Your task to perform on an android device: Open location settings Image 0: 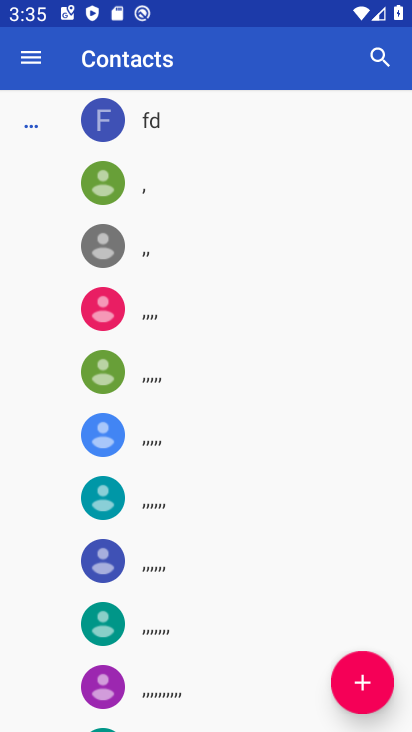
Step 0: press back button
Your task to perform on an android device: Open location settings Image 1: 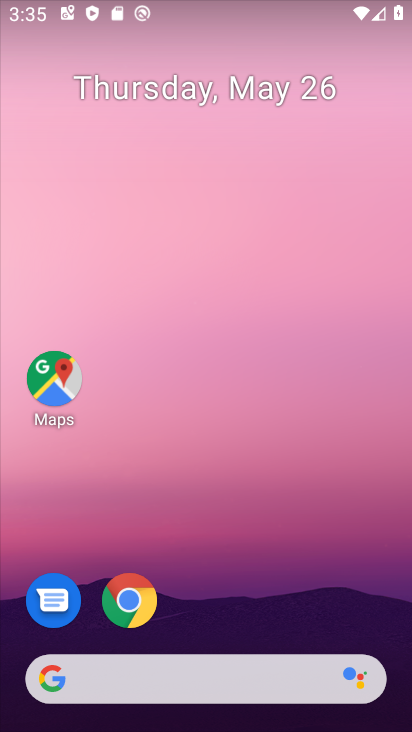
Step 1: drag from (271, 561) to (177, 43)
Your task to perform on an android device: Open location settings Image 2: 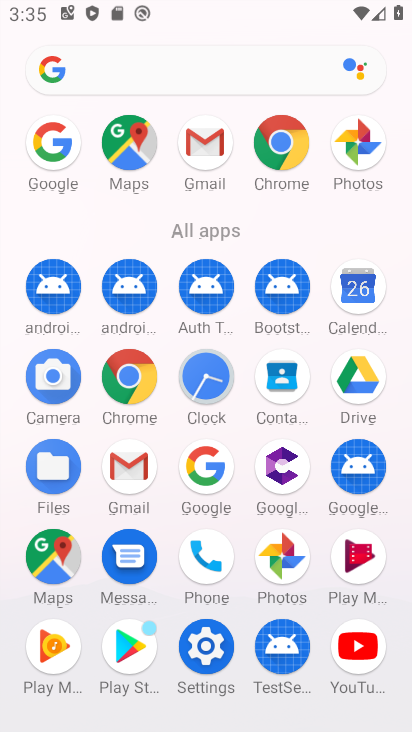
Step 2: drag from (5, 604) to (2, 224)
Your task to perform on an android device: Open location settings Image 3: 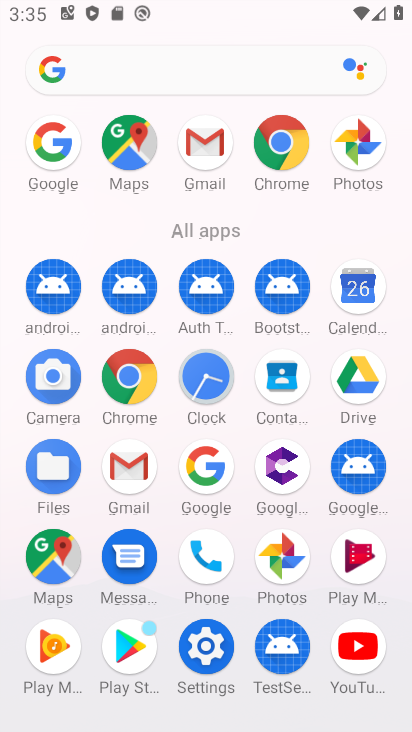
Step 3: click (203, 642)
Your task to perform on an android device: Open location settings Image 4: 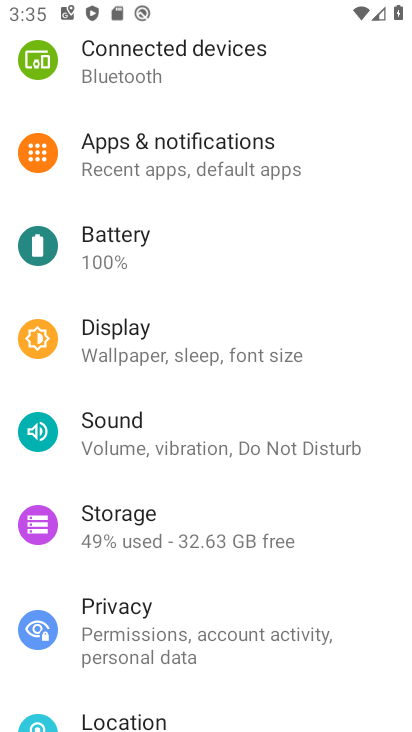
Step 4: drag from (229, 634) to (226, 277)
Your task to perform on an android device: Open location settings Image 5: 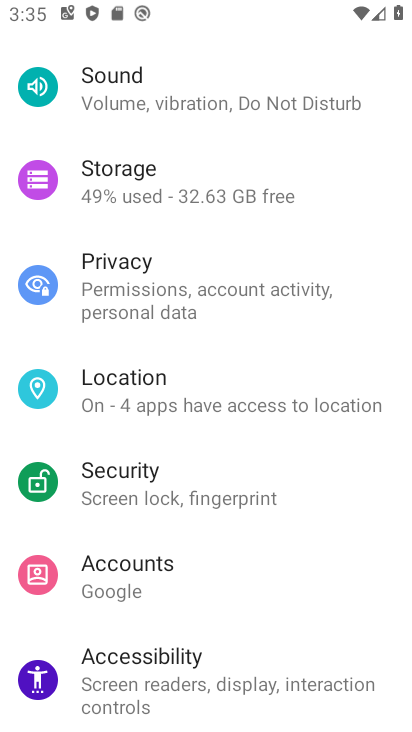
Step 5: drag from (256, 649) to (255, 347)
Your task to perform on an android device: Open location settings Image 6: 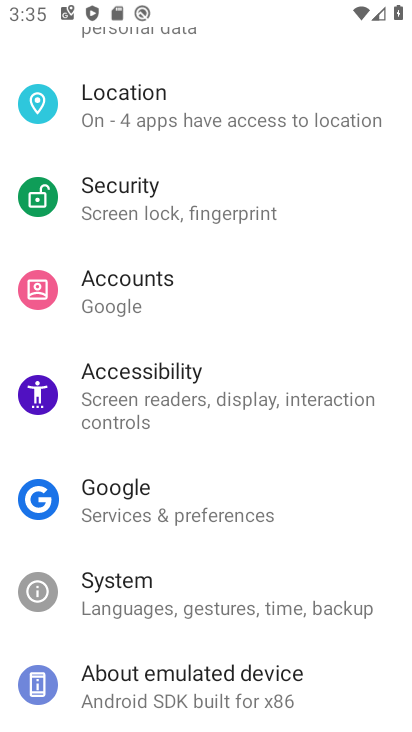
Step 6: click (125, 100)
Your task to perform on an android device: Open location settings Image 7: 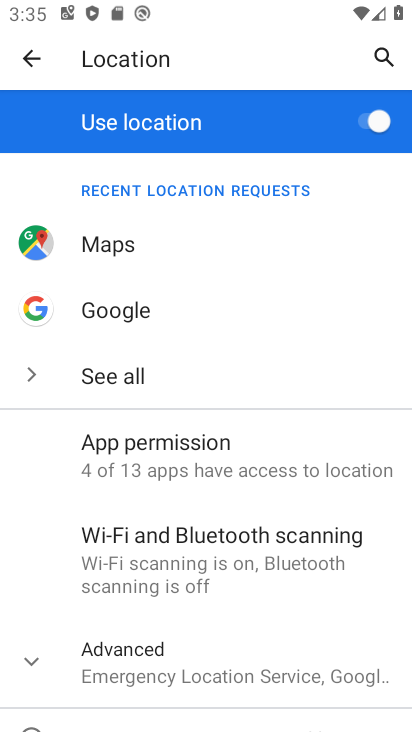
Step 7: click (30, 666)
Your task to perform on an android device: Open location settings Image 8: 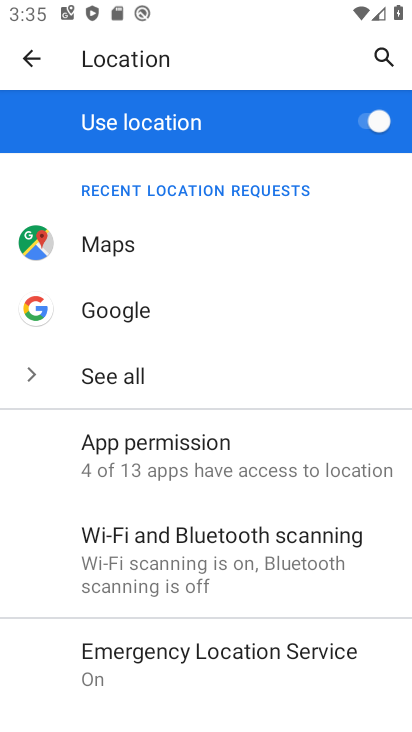
Step 8: task complete